Your task to perform on an android device: Clear the cart on amazon. Add lg ultragear to the cart on amazon Image 0: 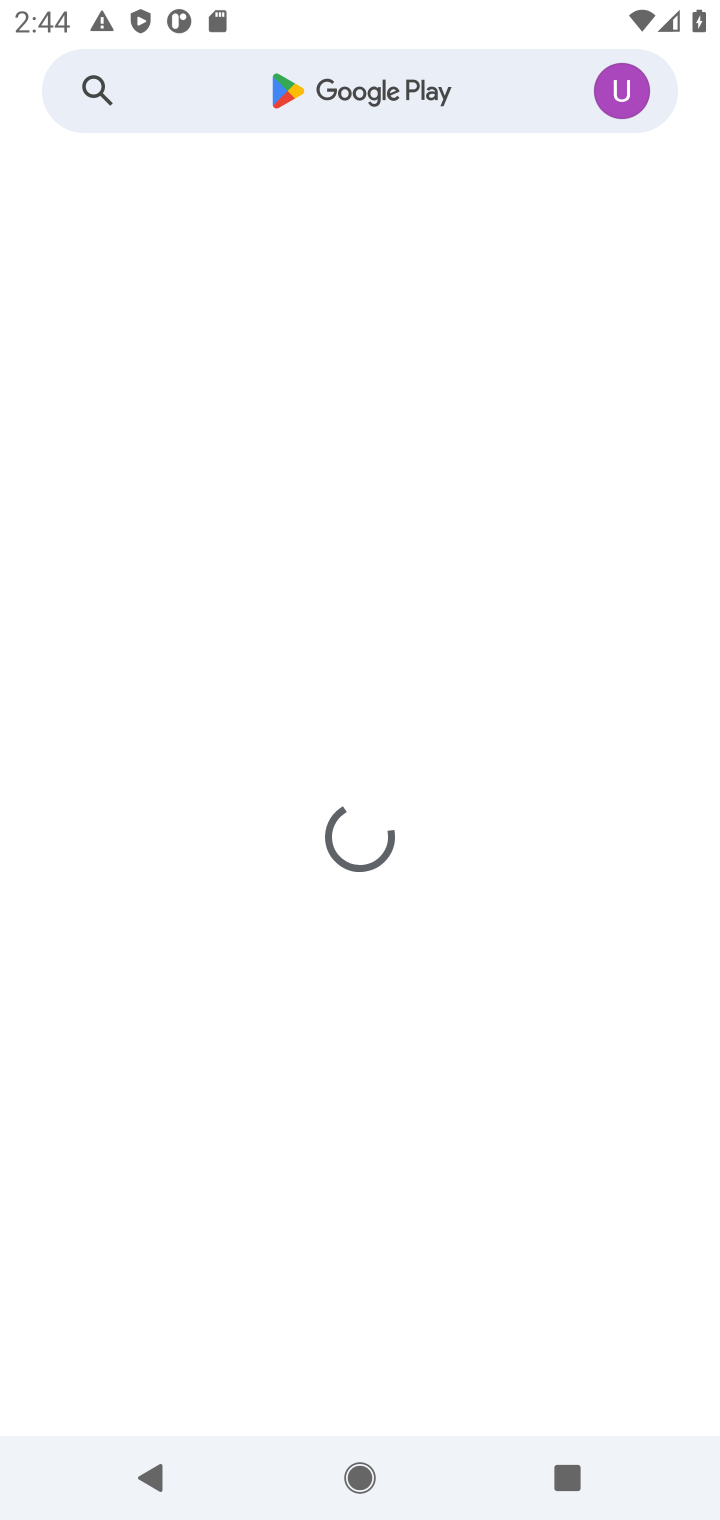
Step 0: press home button
Your task to perform on an android device: Clear the cart on amazon. Add lg ultragear to the cart on amazon Image 1: 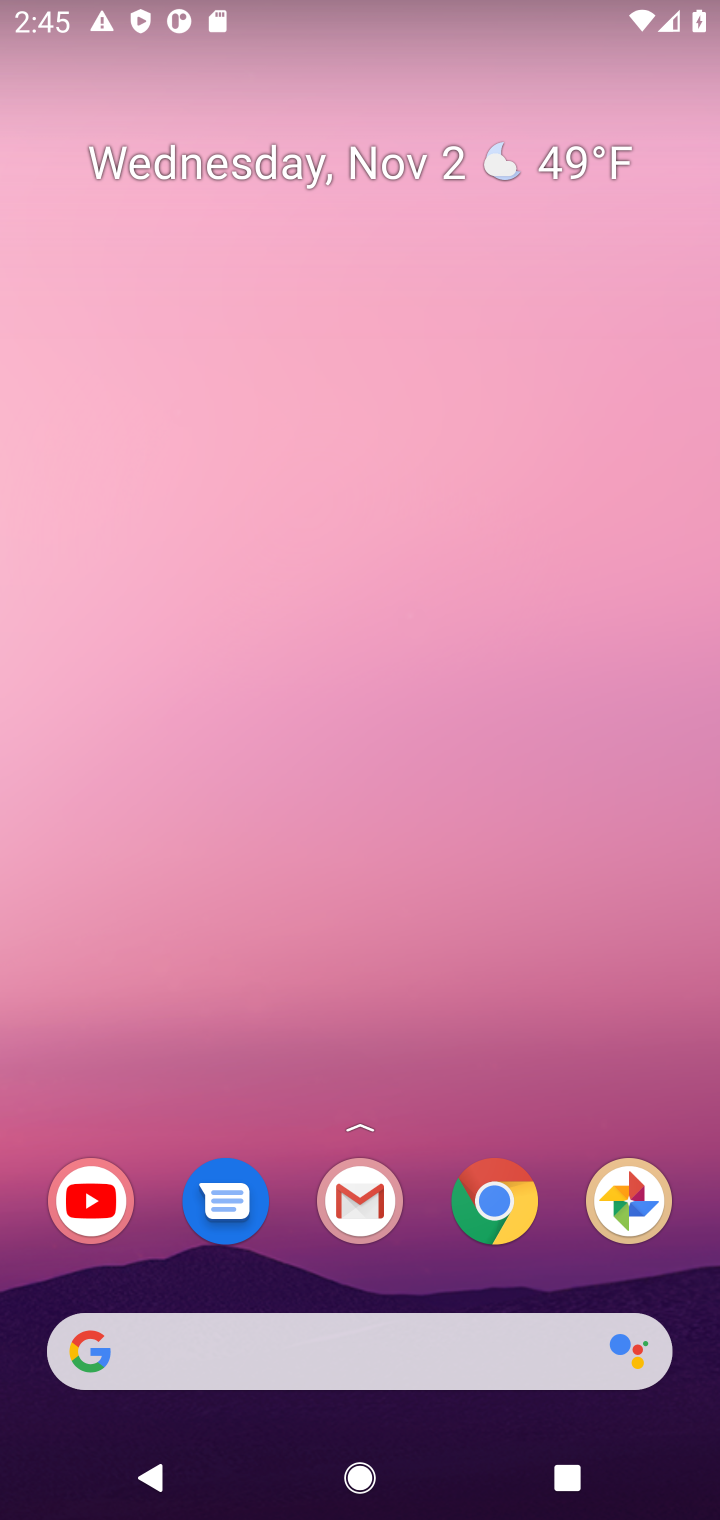
Step 1: click (503, 1185)
Your task to perform on an android device: Clear the cart on amazon. Add lg ultragear to the cart on amazon Image 2: 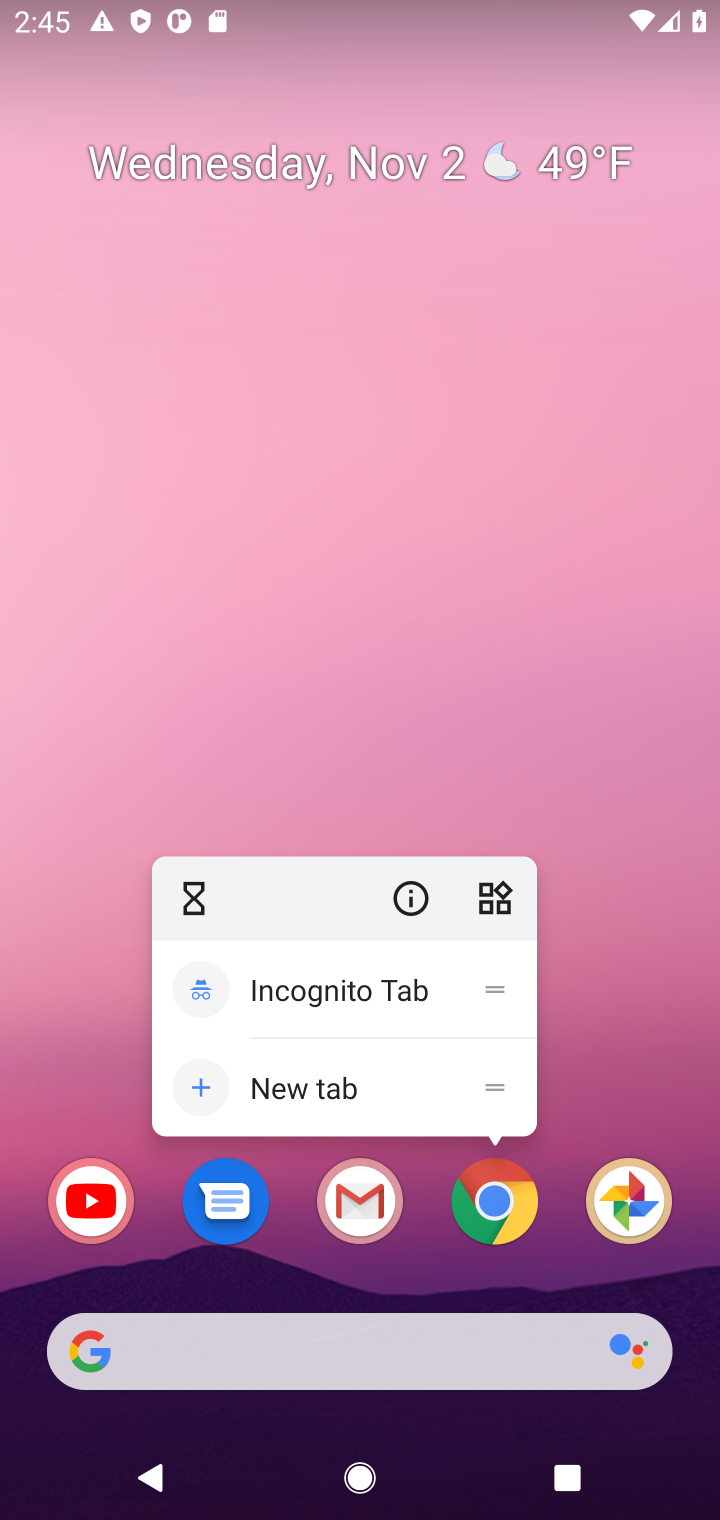
Step 2: click (503, 1181)
Your task to perform on an android device: Clear the cart on amazon. Add lg ultragear to the cart on amazon Image 3: 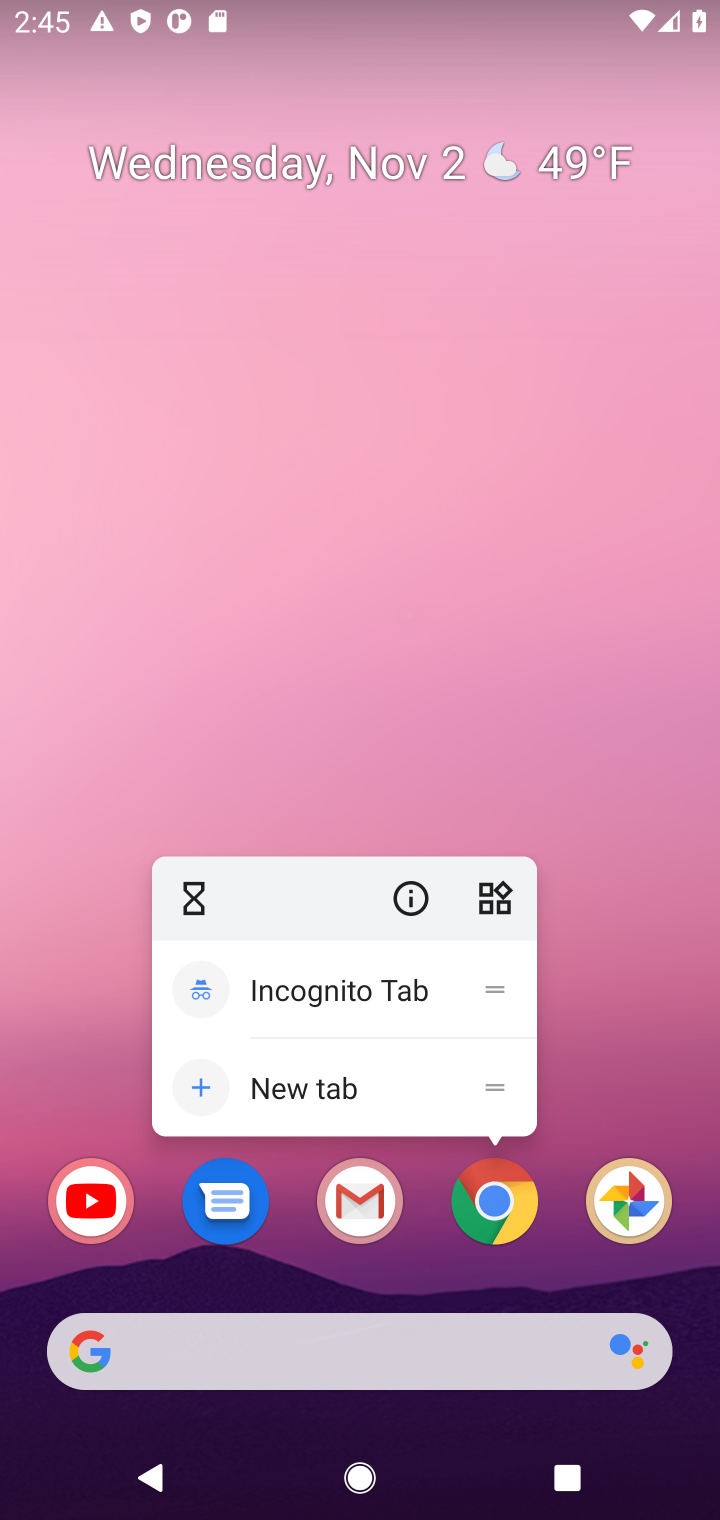
Step 3: click (486, 1210)
Your task to perform on an android device: Clear the cart on amazon. Add lg ultragear to the cart on amazon Image 4: 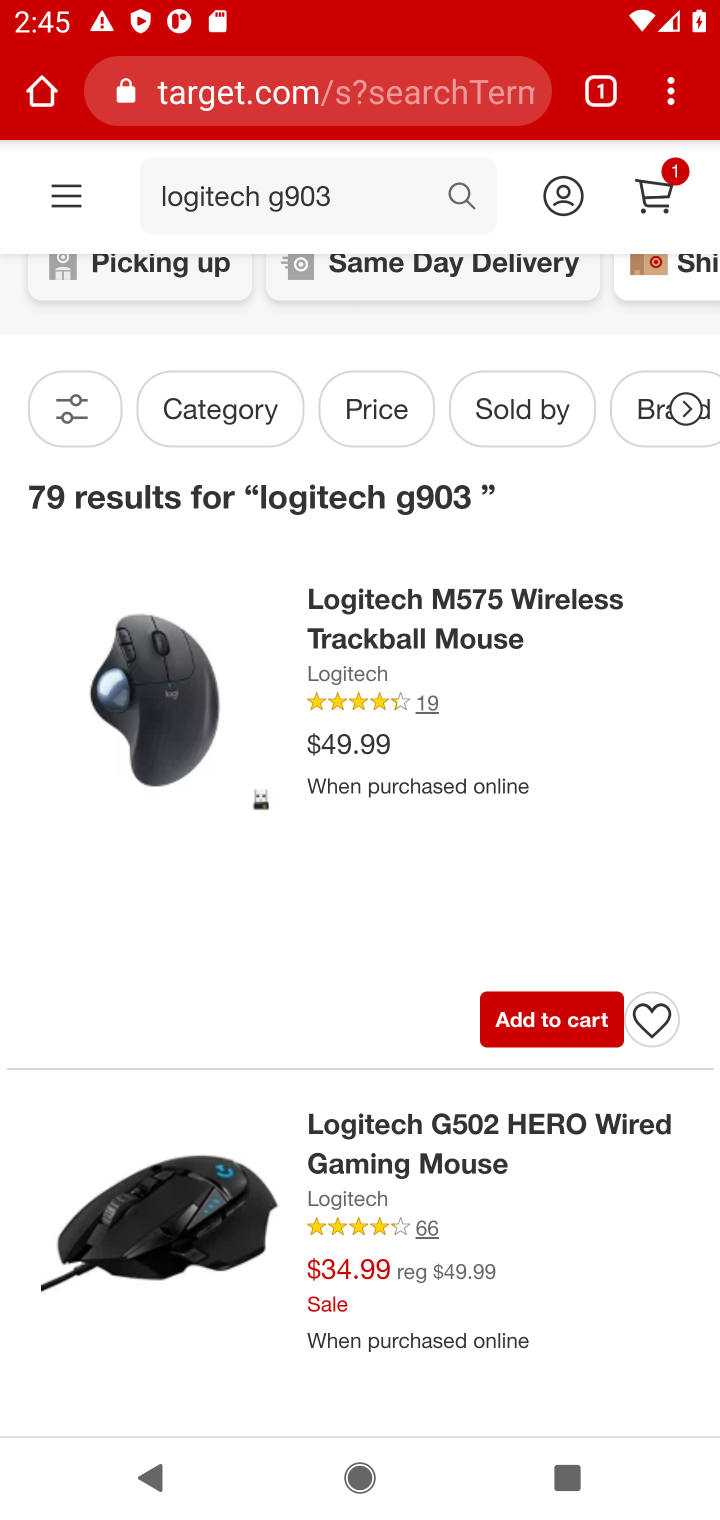
Step 4: click (347, 89)
Your task to perform on an android device: Clear the cart on amazon. Add lg ultragear to the cart on amazon Image 5: 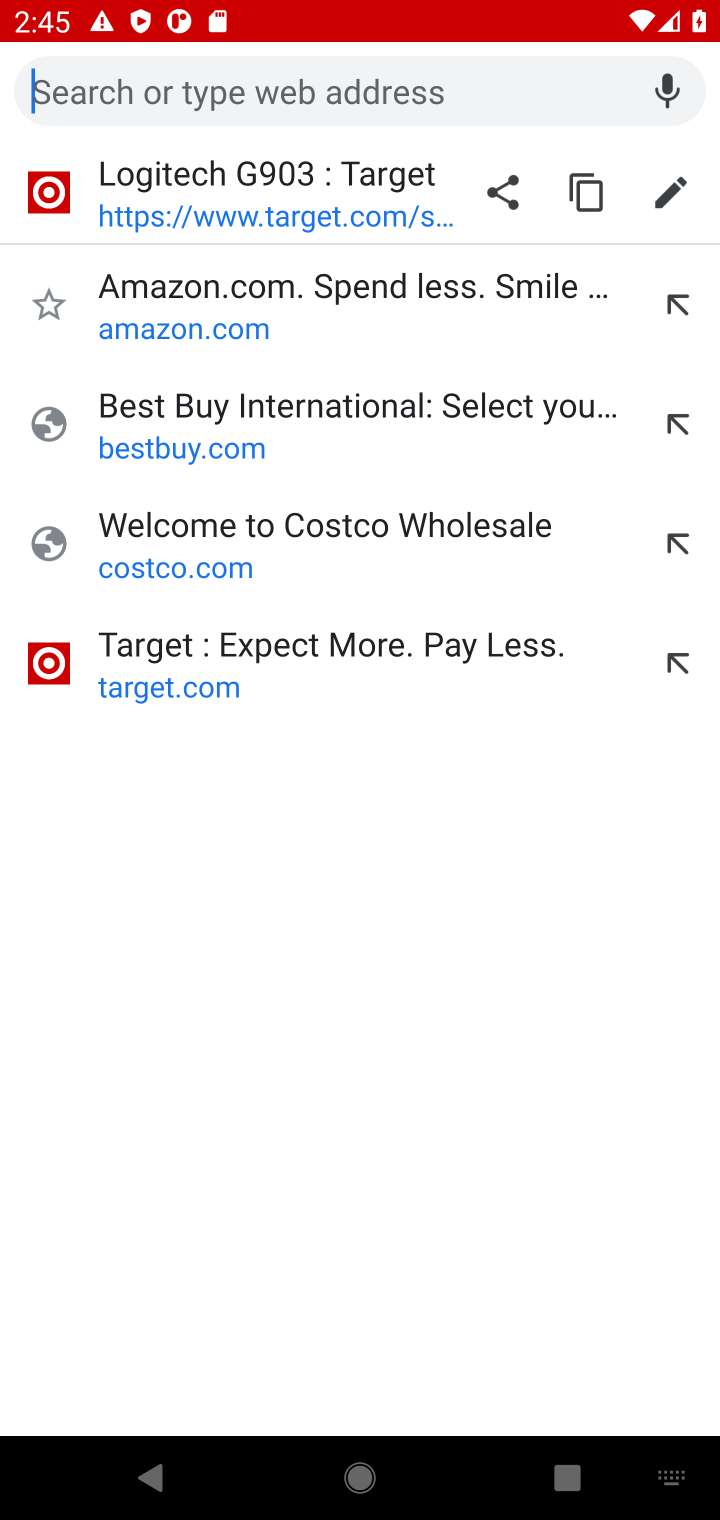
Step 5: click (190, 289)
Your task to perform on an android device: Clear the cart on amazon. Add lg ultragear to the cart on amazon Image 6: 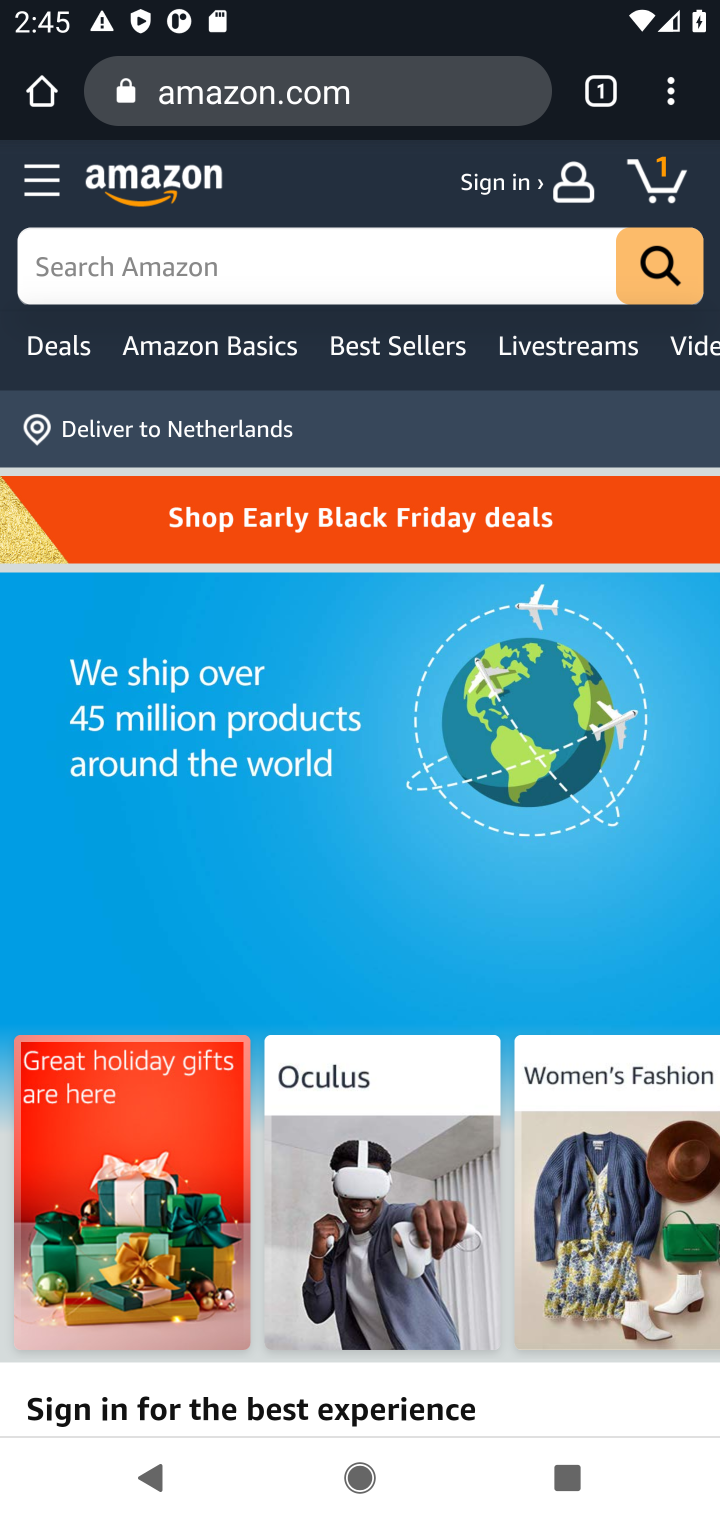
Step 6: click (192, 255)
Your task to perform on an android device: Clear the cart on amazon. Add lg ultragear to the cart on amazon Image 7: 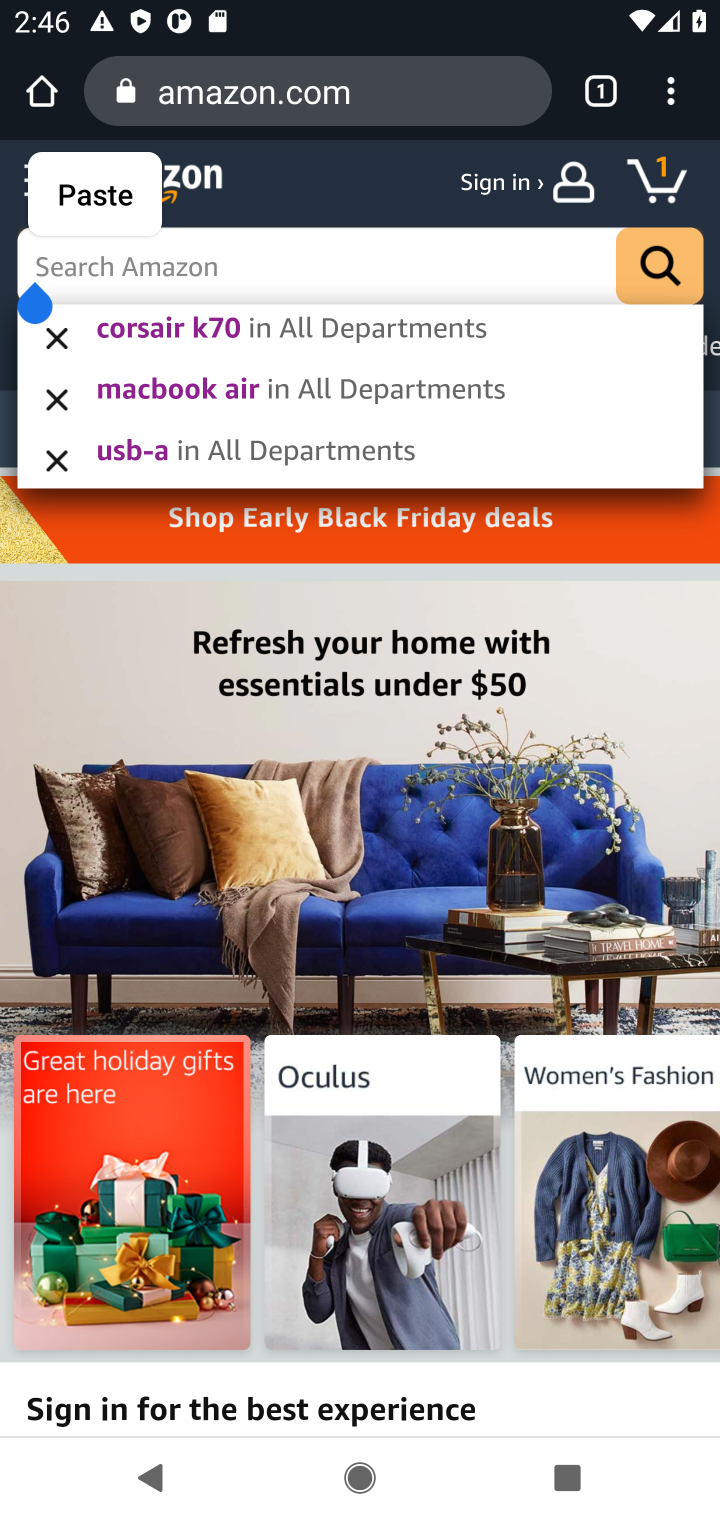
Step 7: type "lg ultragear "
Your task to perform on an android device: Clear the cart on amazon. Add lg ultragear to the cart on amazon Image 8: 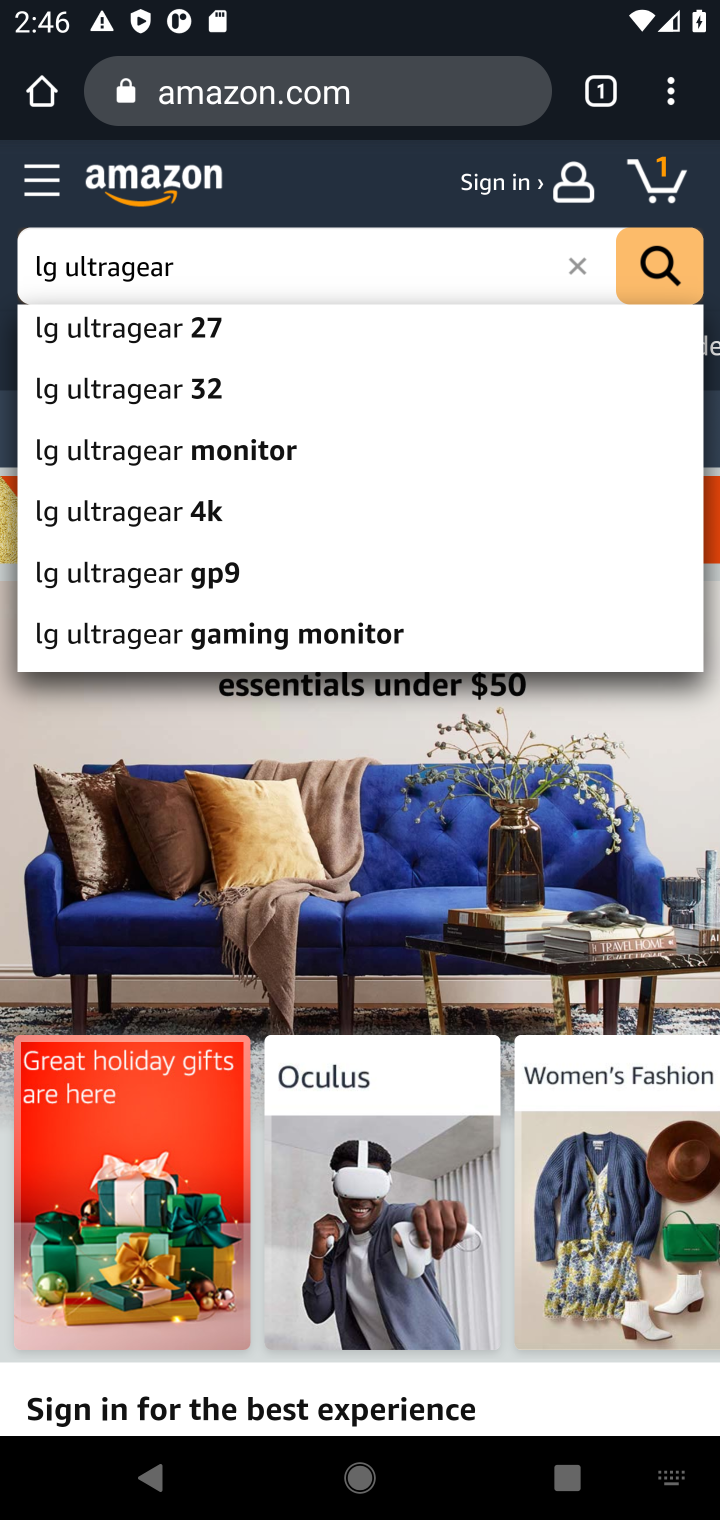
Step 8: press enter
Your task to perform on an android device: Clear the cart on amazon. Add lg ultragear to the cart on amazon Image 9: 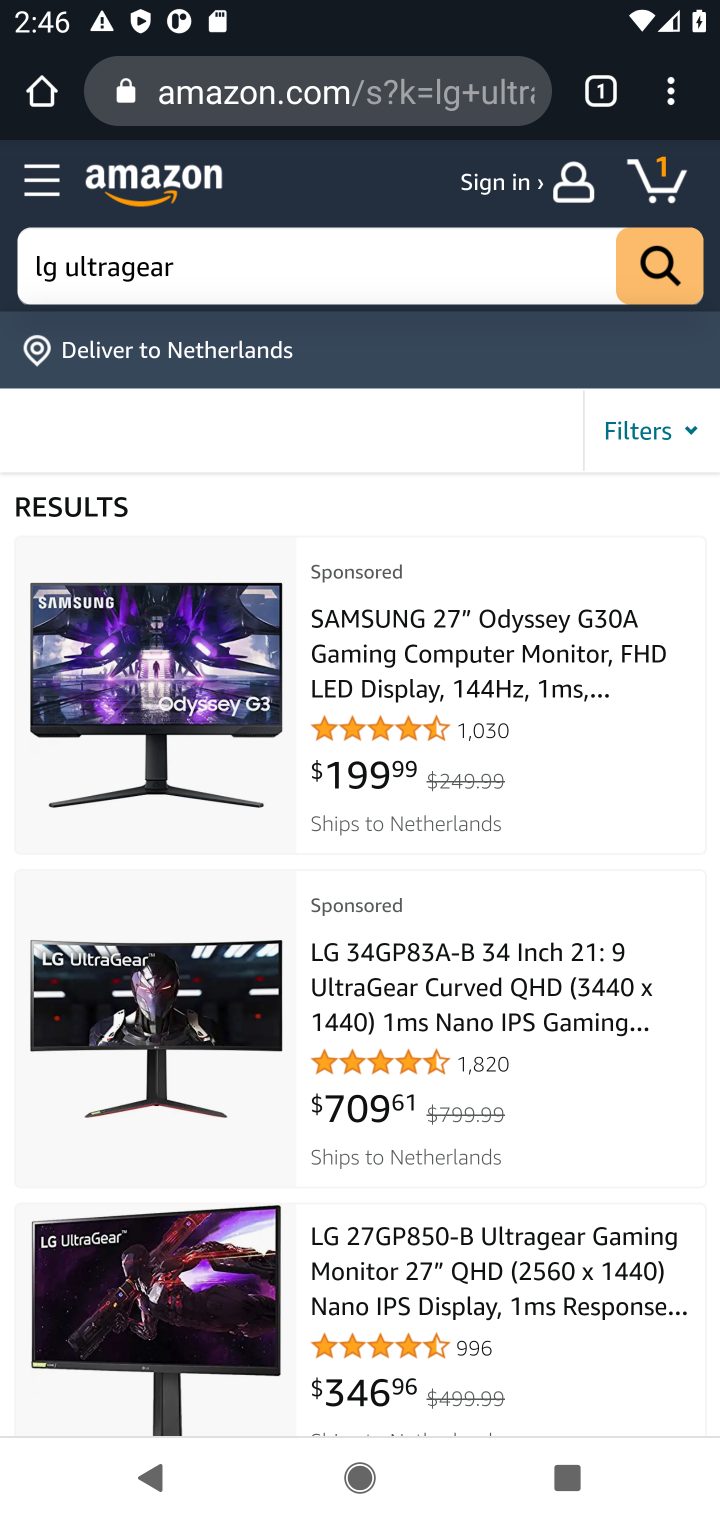
Step 9: click (498, 999)
Your task to perform on an android device: Clear the cart on amazon. Add lg ultragear to the cart on amazon Image 10: 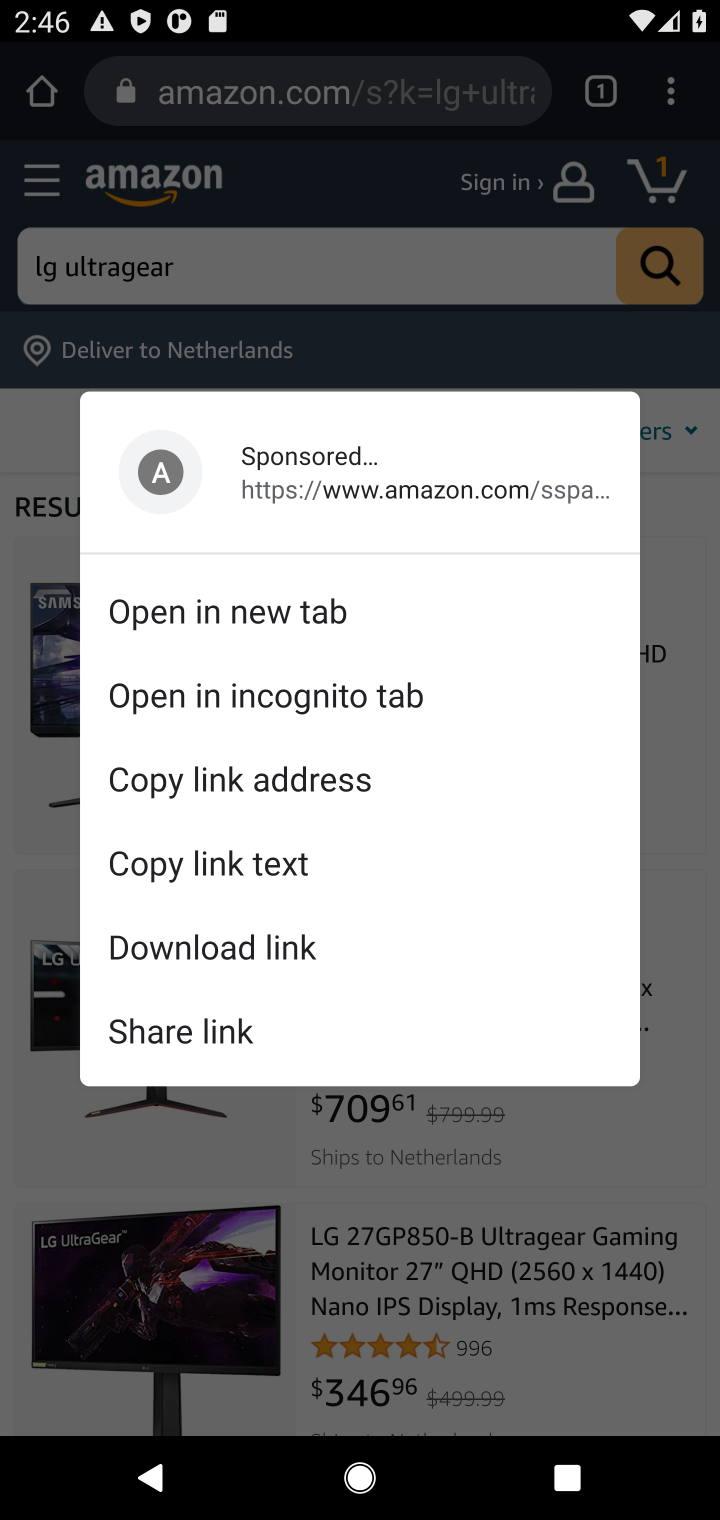
Step 10: click (669, 966)
Your task to perform on an android device: Clear the cart on amazon. Add lg ultragear to the cart on amazon Image 11: 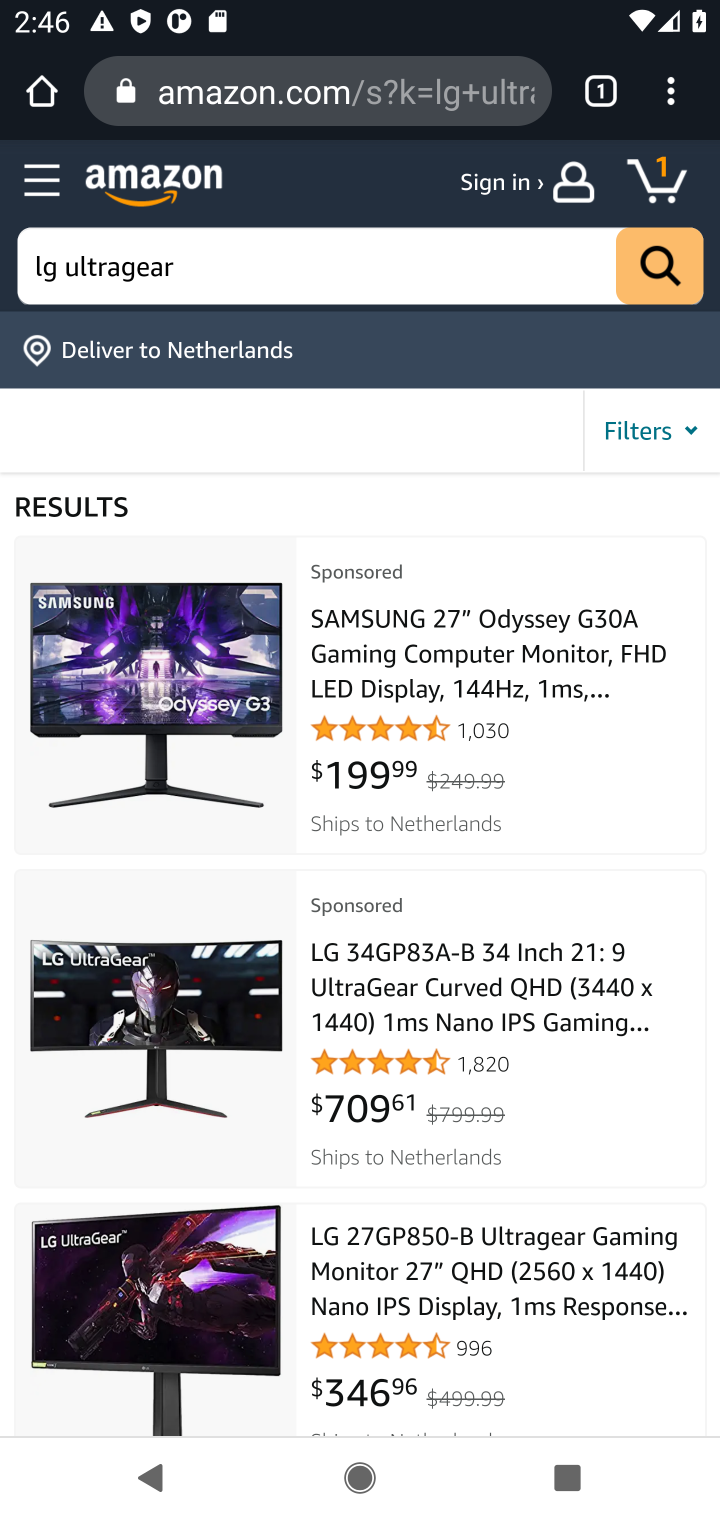
Step 11: click (379, 965)
Your task to perform on an android device: Clear the cart on amazon. Add lg ultragear to the cart on amazon Image 12: 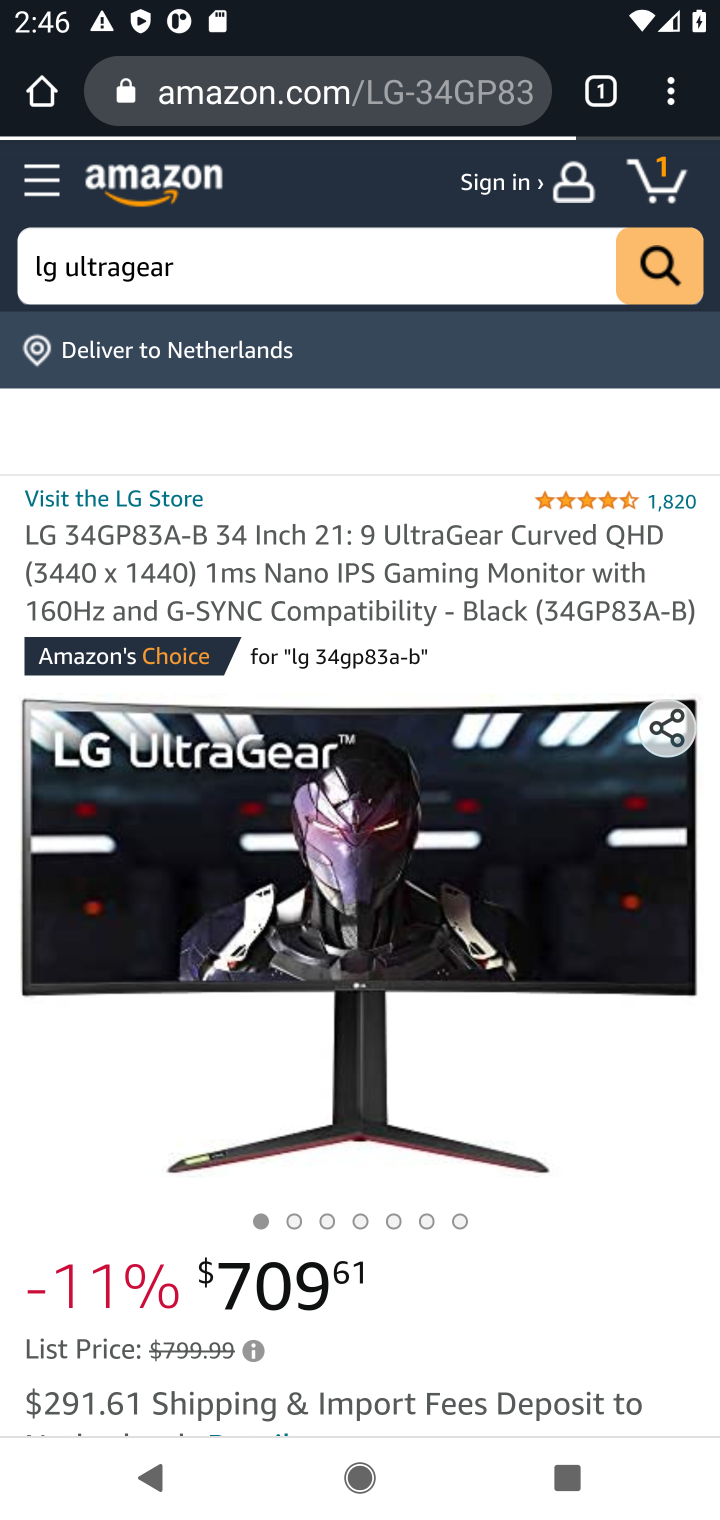
Step 12: drag from (461, 1283) to (517, 749)
Your task to perform on an android device: Clear the cart on amazon. Add lg ultragear to the cart on amazon Image 13: 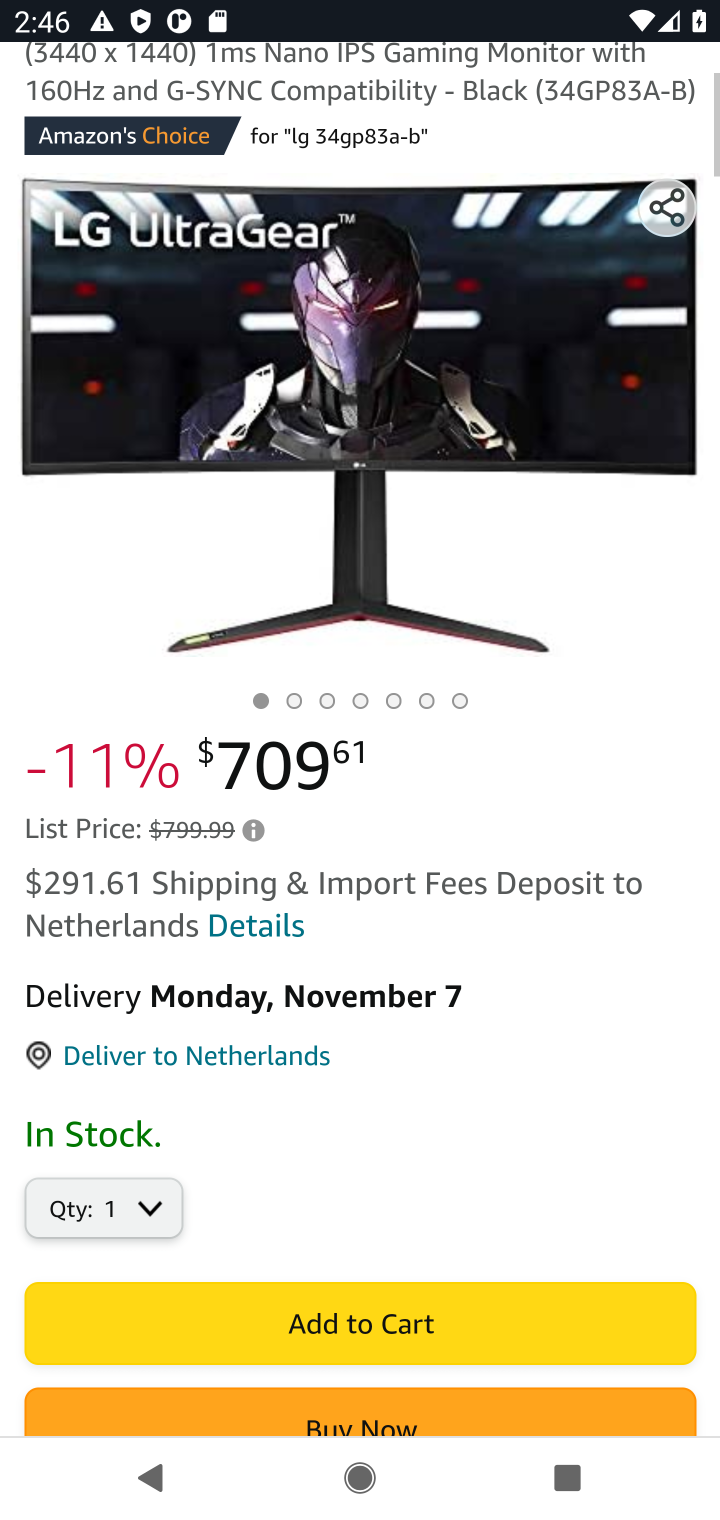
Step 13: drag from (511, 738) to (487, 520)
Your task to perform on an android device: Clear the cart on amazon. Add lg ultragear to the cart on amazon Image 14: 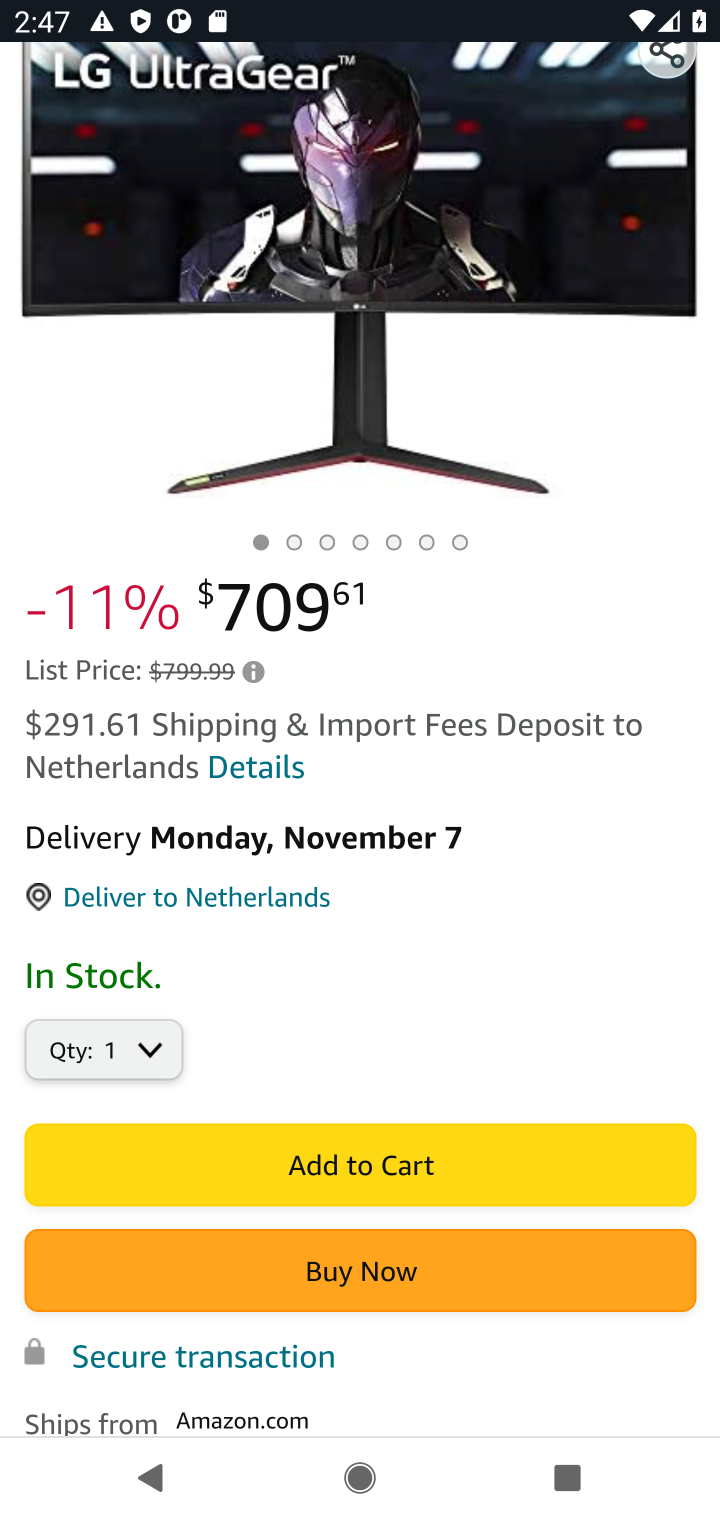
Step 14: click (358, 1169)
Your task to perform on an android device: Clear the cart on amazon. Add lg ultragear to the cart on amazon Image 15: 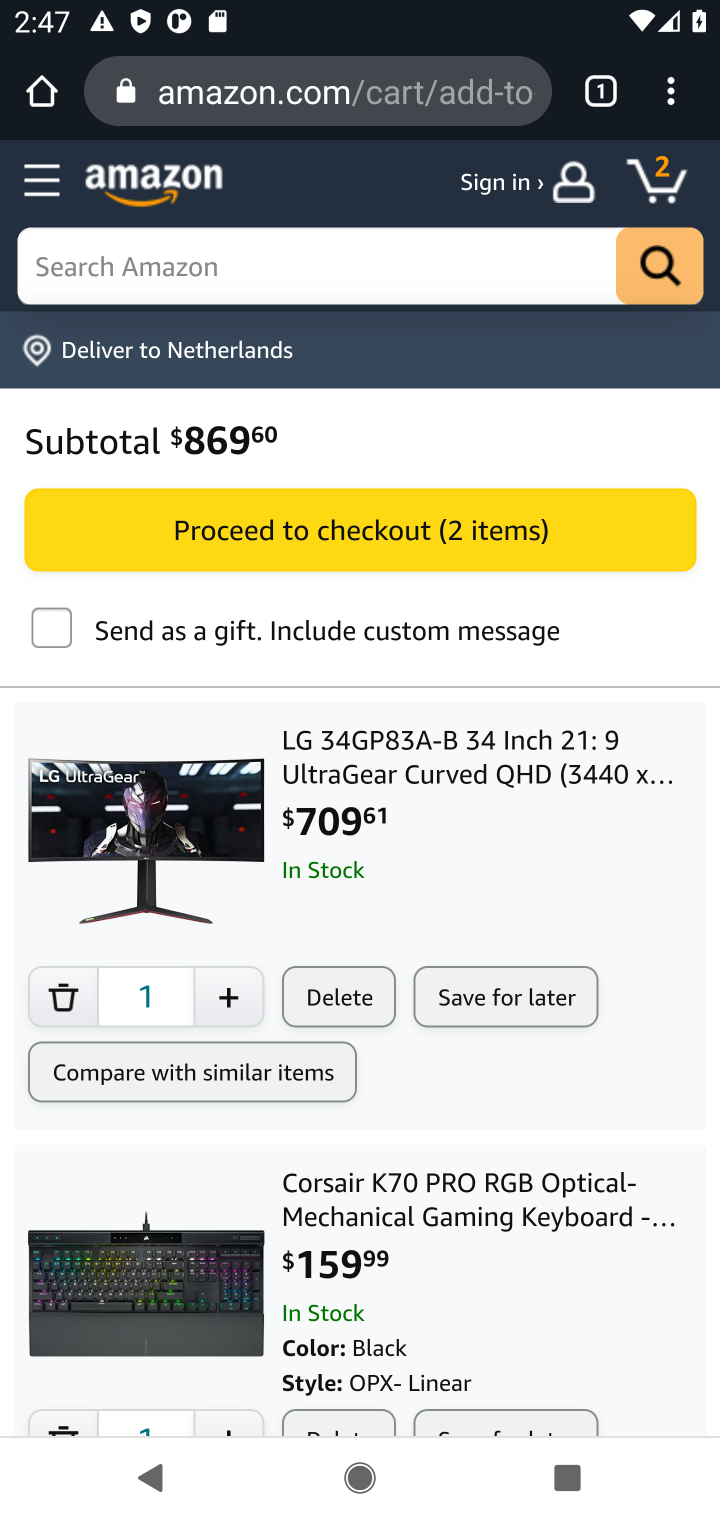
Step 15: click (673, 165)
Your task to perform on an android device: Clear the cart on amazon. Add lg ultragear to the cart on amazon Image 16: 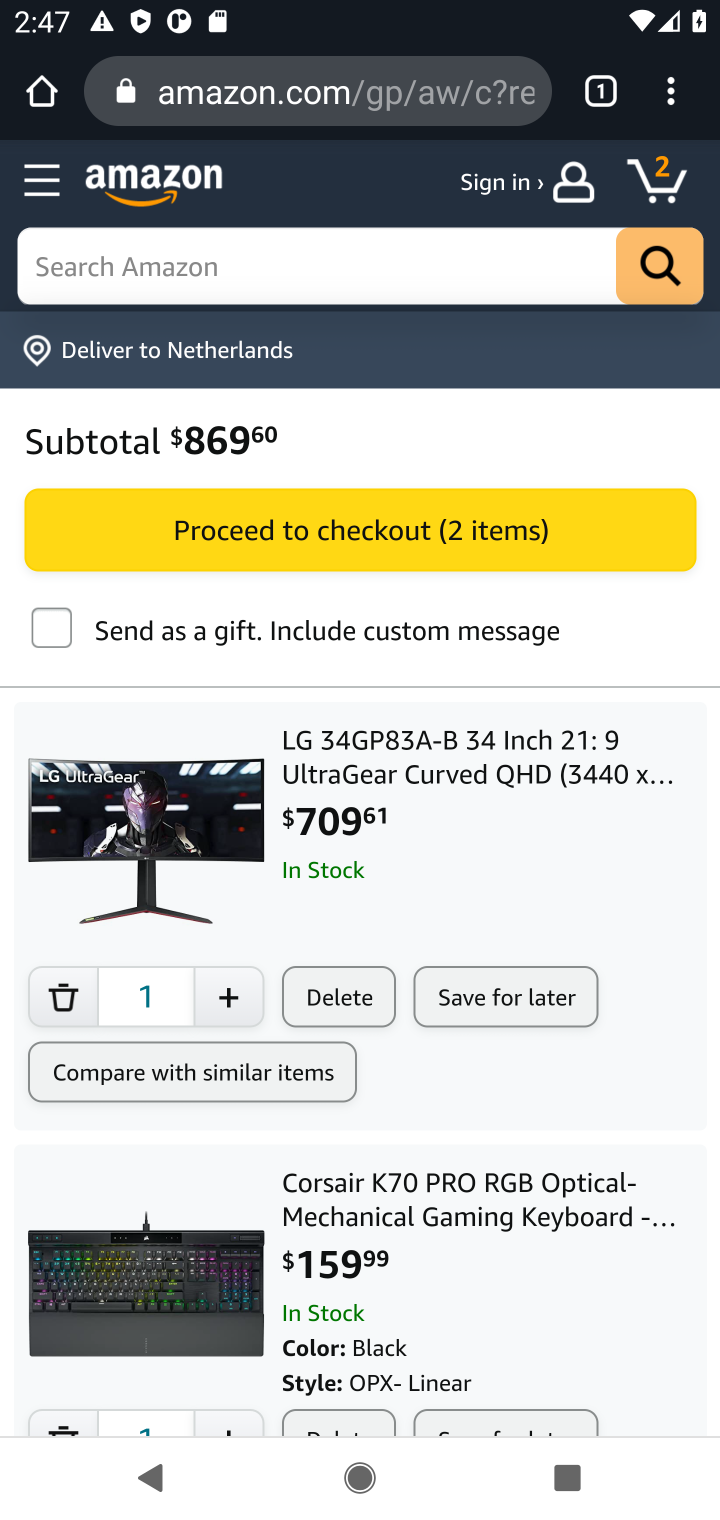
Step 16: drag from (419, 1261) to (574, 351)
Your task to perform on an android device: Clear the cart on amazon. Add lg ultragear to the cart on amazon Image 17: 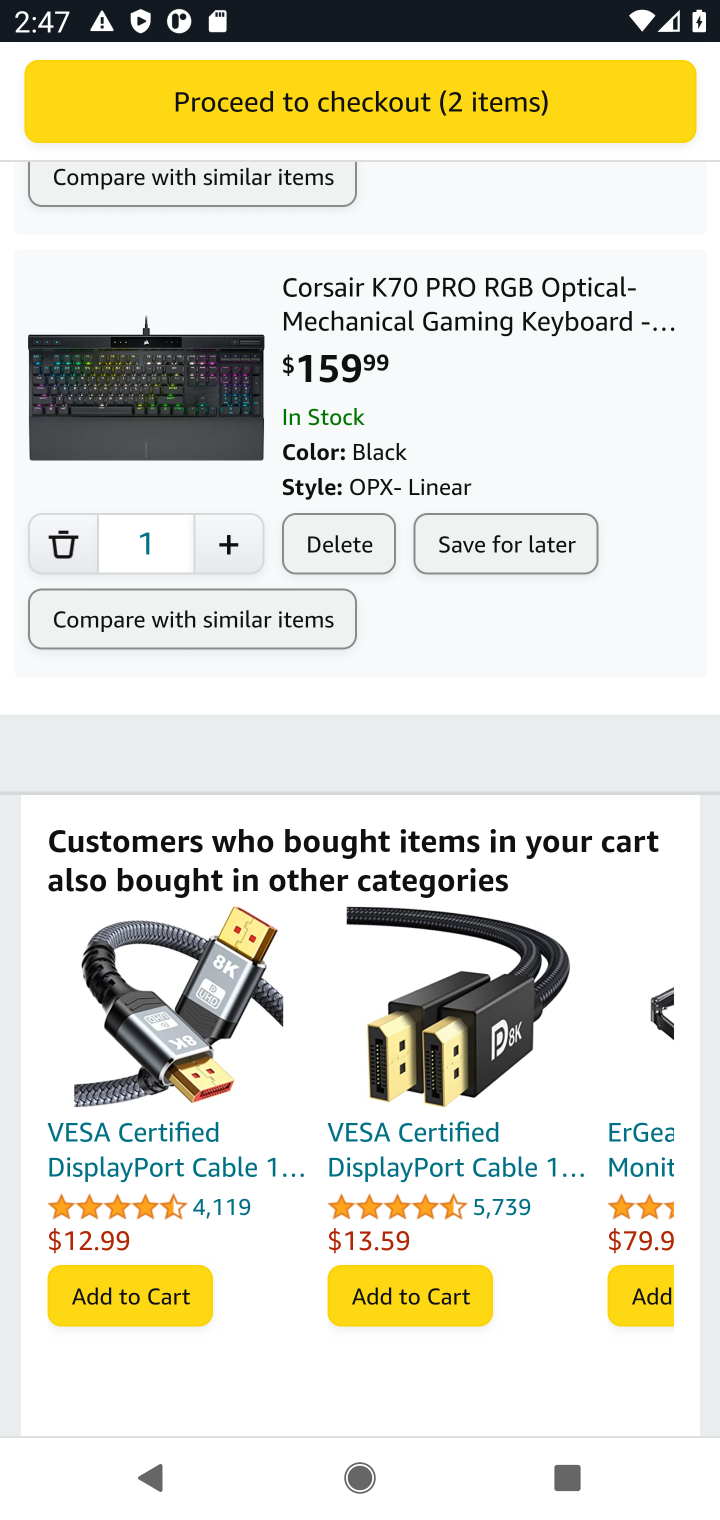
Step 17: click (326, 539)
Your task to perform on an android device: Clear the cart on amazon. Add lg ultragear to the cart on amazon Image 18: 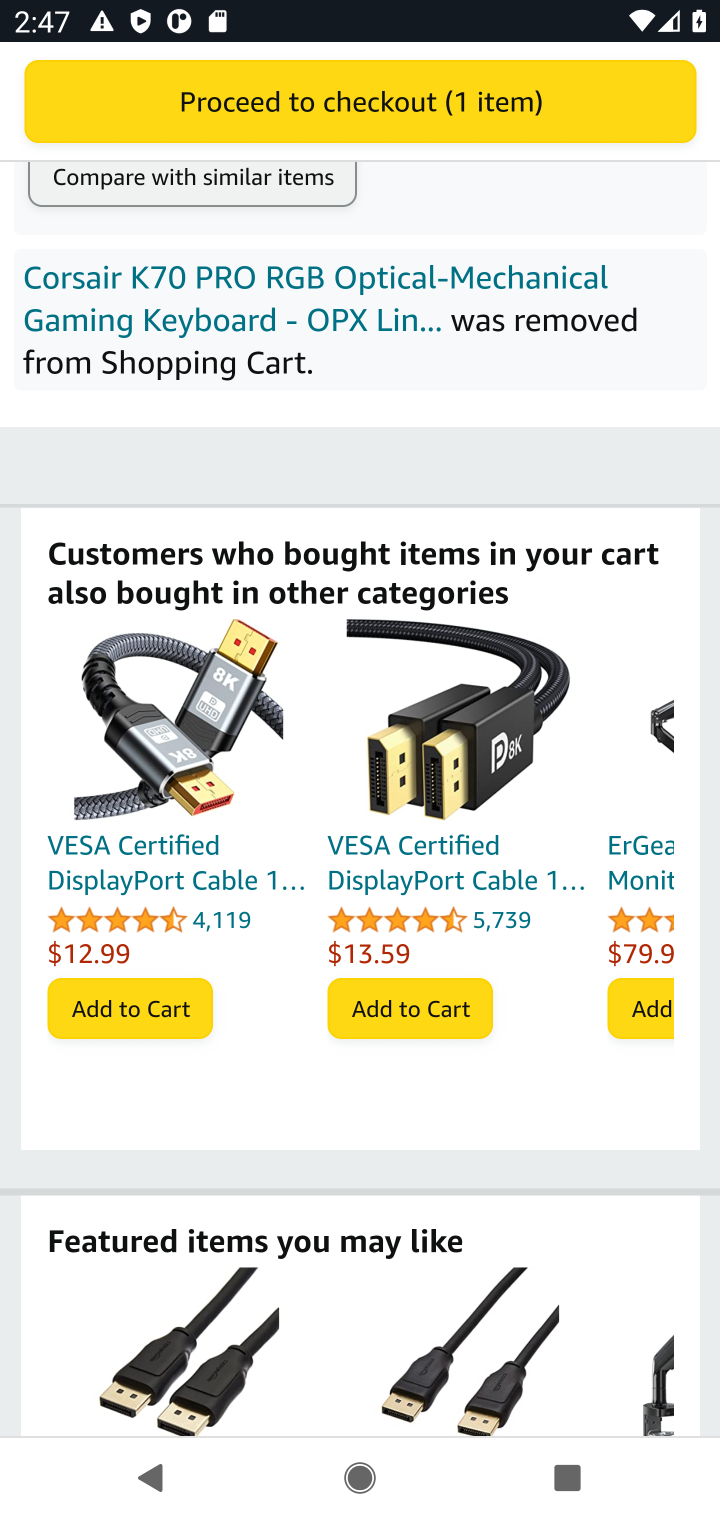
Step 18: task complete